Your task to perform on an android device: Open Wikipedia Image 0: 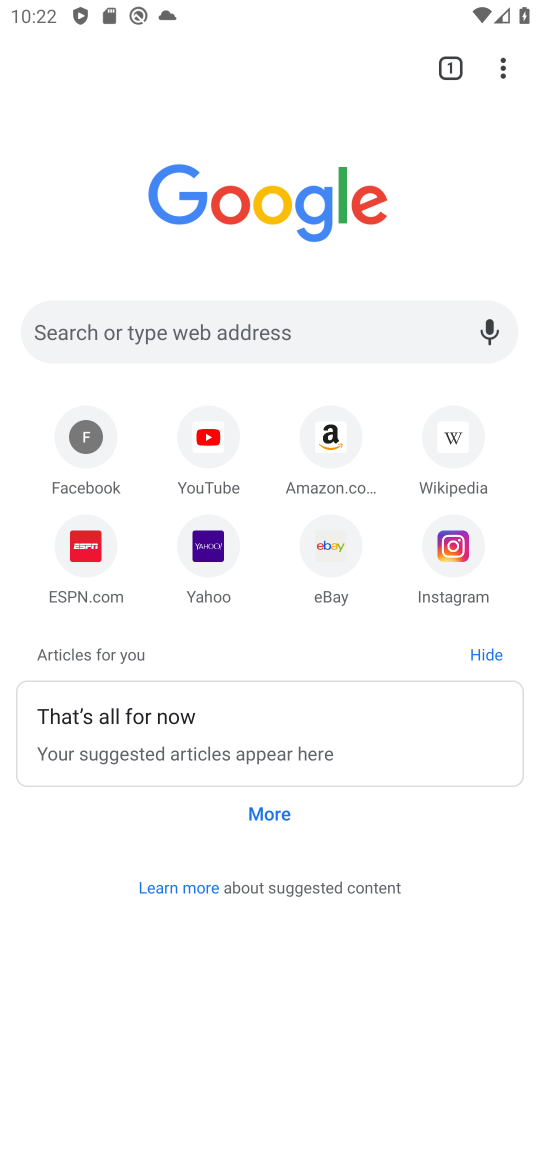
Step 0: click (441, 452)
Your task to perform on an android device: Open Wikipedia Image 1: 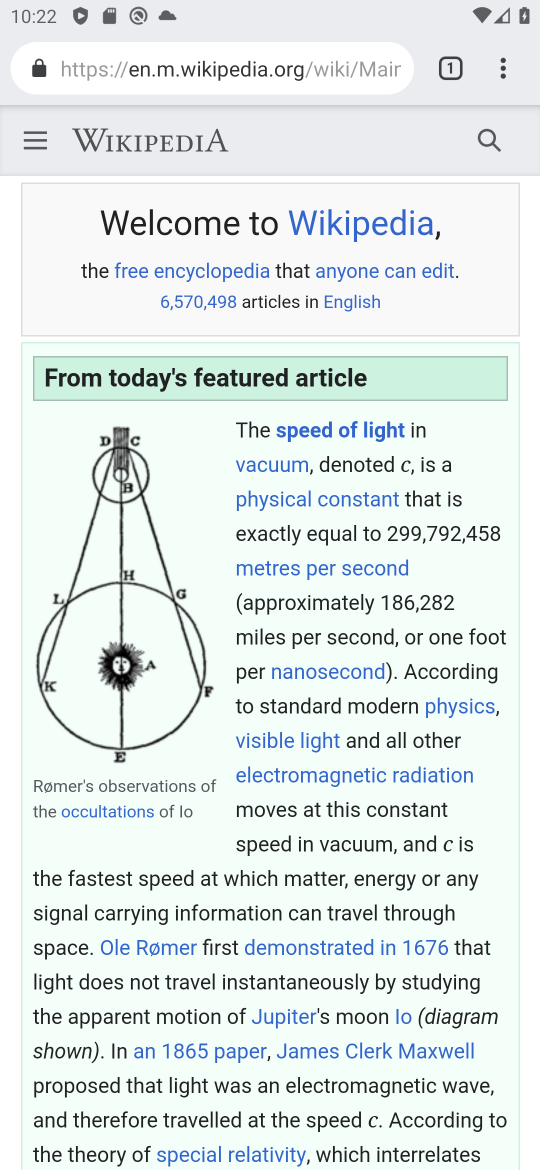
Step 1: task complete